Your task to perform on an android device: Open the stopwatch Image 0: 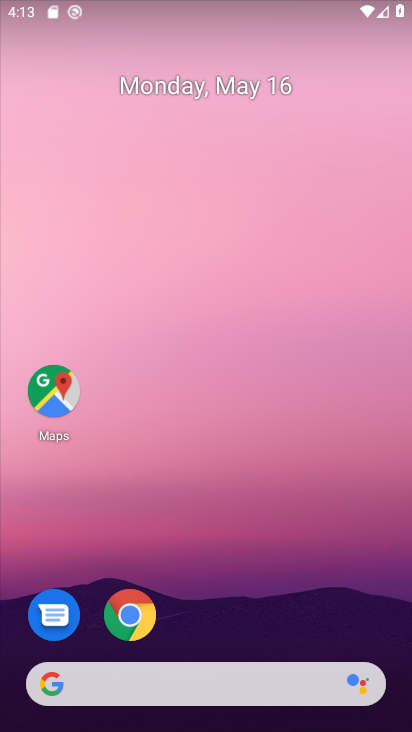
Step 0: drag from (167, 615) to (236, 165)
Your task to perform on an android device: Open the stopwatch Image 1: 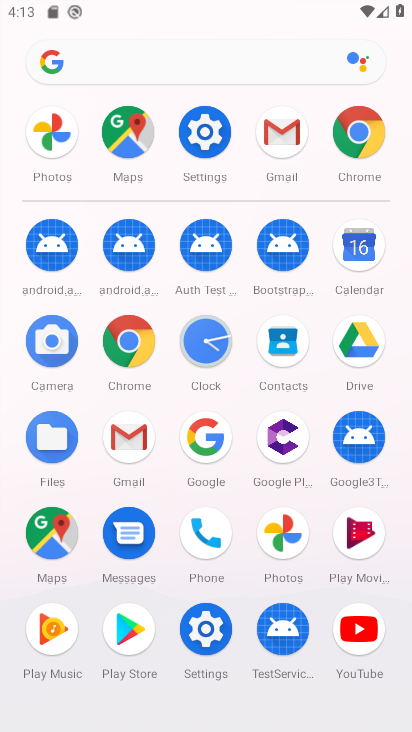
Step 1: click (205, 355)
Your task to perform on an android device: Open the stopwatch Image 2: 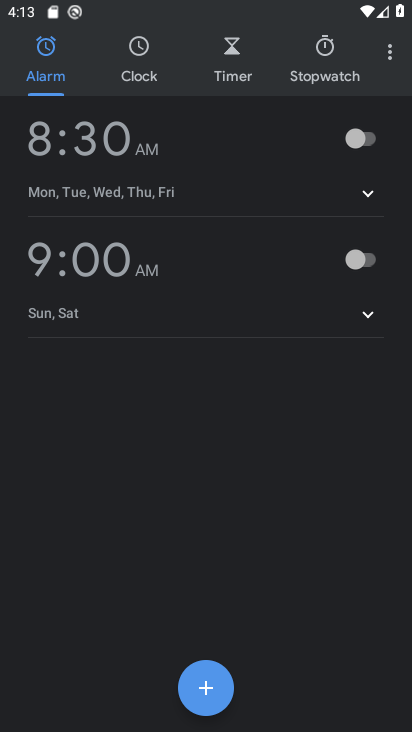
Step 2: click (356, 81)
Your task to perform on an android device: Open the stopwatch Image 3: 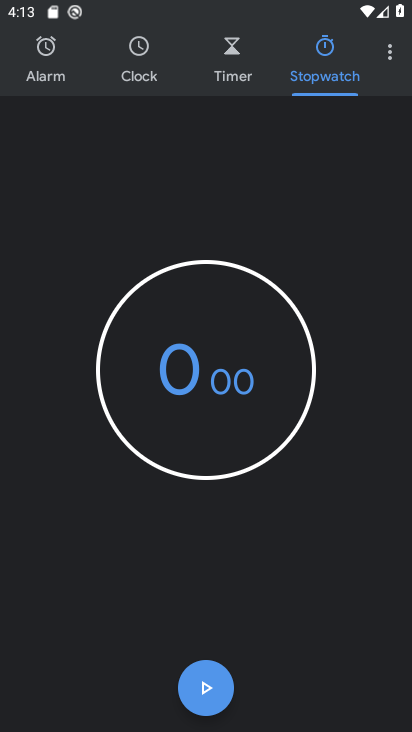
Step 3: task complete